Your task to perform on an android device: turn off sleep mode Image 0: 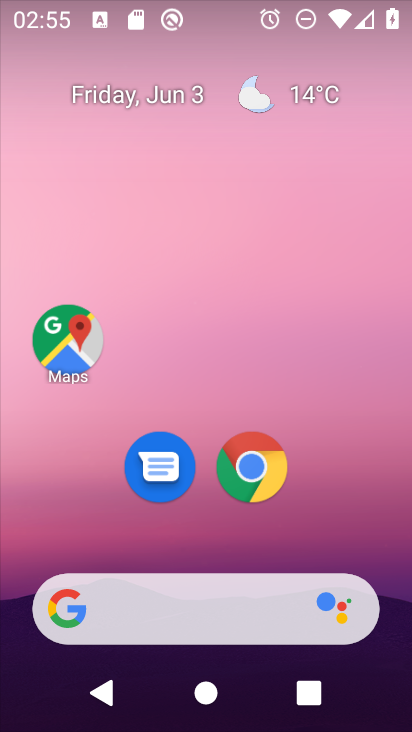
Step 0: drag from (393, 620) to (340, 246)
Your task to perform on an android device: turn off sleep mode Image 1: 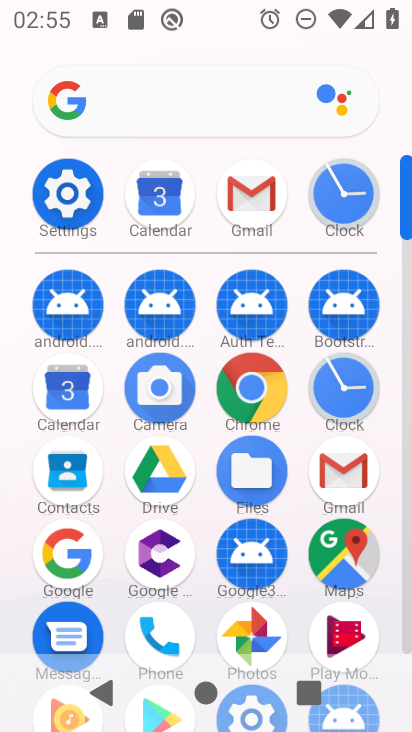
Step 1: click (406, 634)
Your task to perform on an android device: turn off sleep mode Image 2: 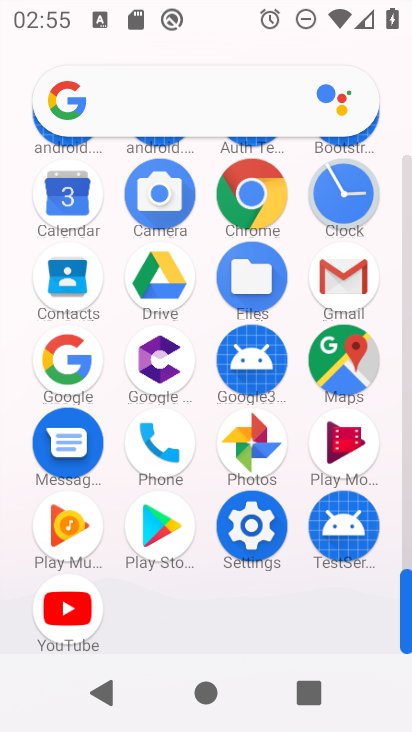
Step 2: click (250, 528)
Your task to perform on an android device: turn off sleep mode Image 3: 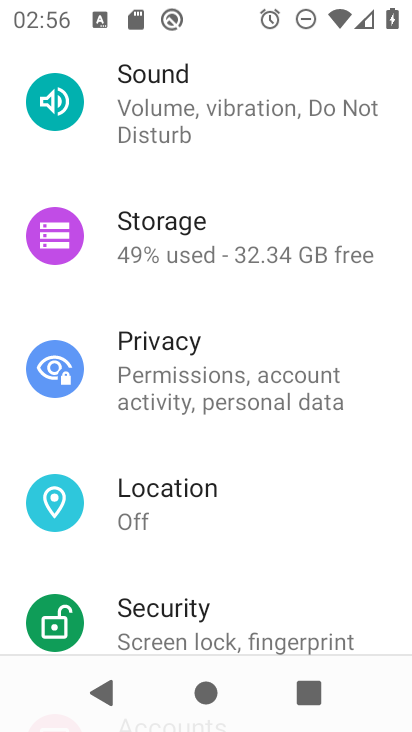
Step 3: drag from (315, 291) to (308, 542)
Your task to perform on an android device: turn off sleep mode Image 4: 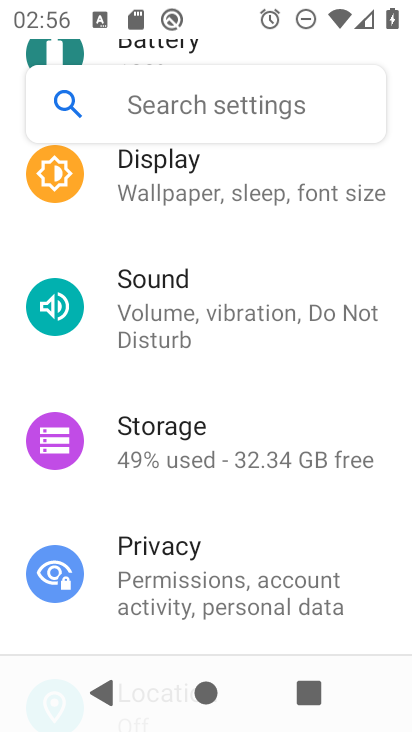
Step 4: drag from (320, 318) to (296, 540)
Your task to perform on an android device: turn off sleep mode Image 5: 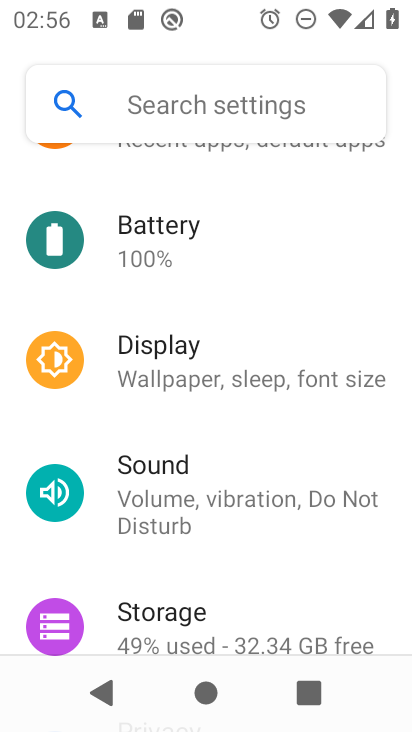
Step 5: click (171, 360)
Your task to perform on an android device: turn off sleep mode Image 6: 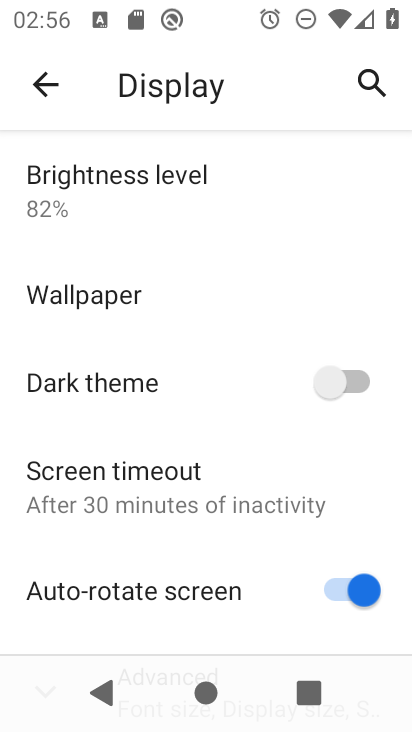
Step 6: drag from (270, 445) to (261, 268)
Your task to perform on an android device: turn off sleep mode Image 7: 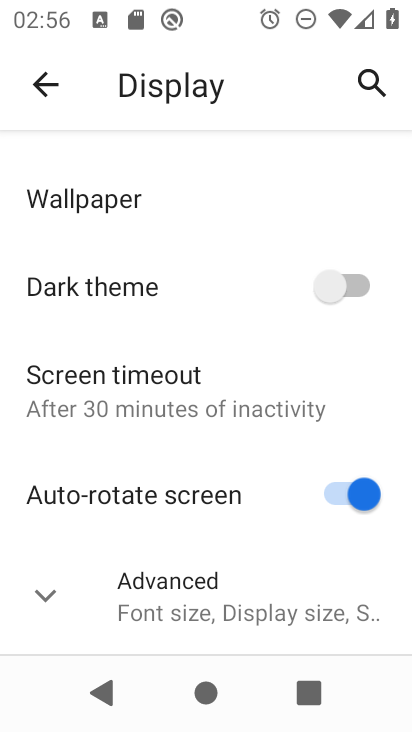
Step 7: click (27, 582)
Your task to perform on an android device: turn off sleep mode Image 8: 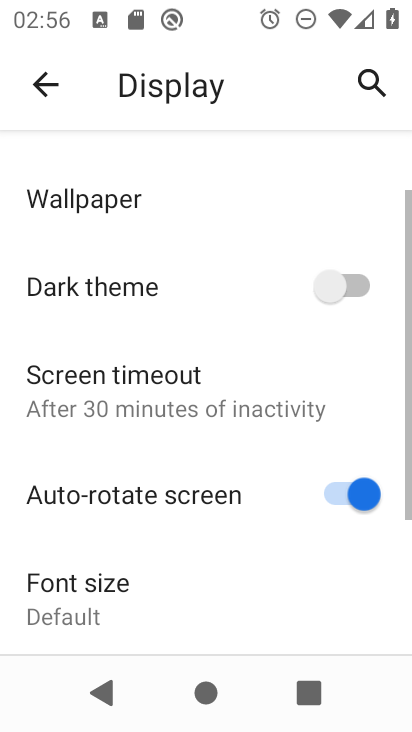
Step 8: task complete